Your task to perform on an android device: Open Android settings Image 0: 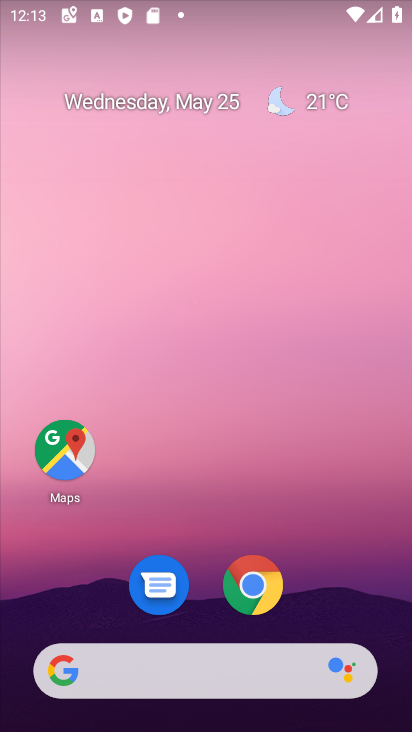
Step 0: drag from (232, 441) to (238, 2)
Your task to perform on an android device: Open Android settings Image 1: 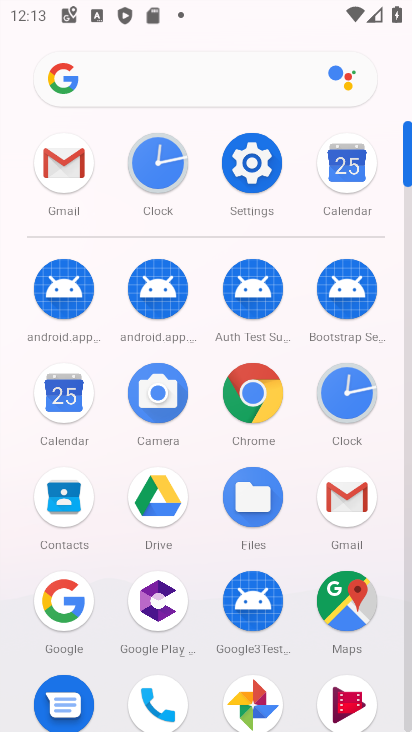
Step 1: click (237, 162)
Your task to perform on an android device: Open Android settings Image 2: 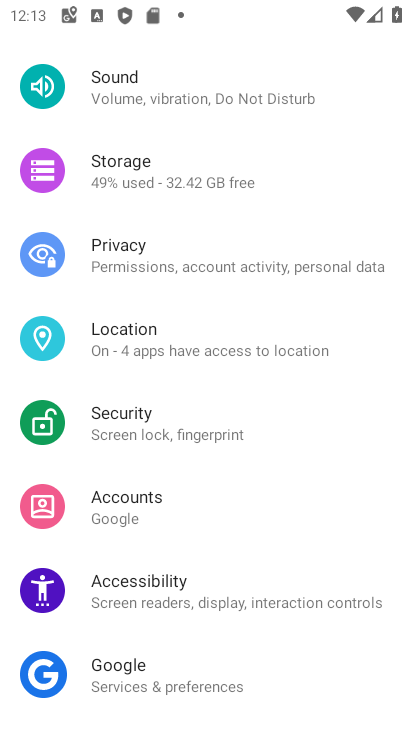
Step 2: drag from (209, 541) to (275, 155)
Your task to perform on an android device: Open Android settings Image 3: 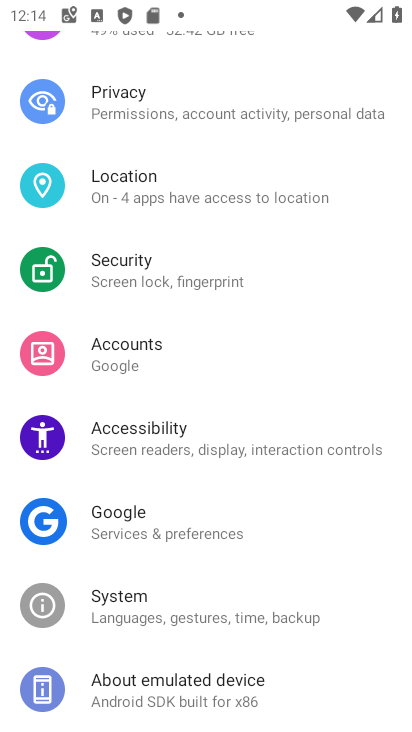
Step 3: click (211, 669)
Your task to perform on an android device: Open Android settings Image 4: 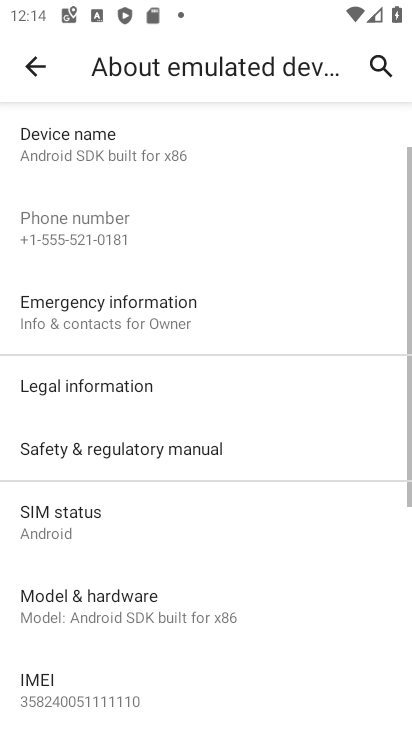
Step 4: task complete